Your task to perform on an android device: Go to internet settings Image 0: 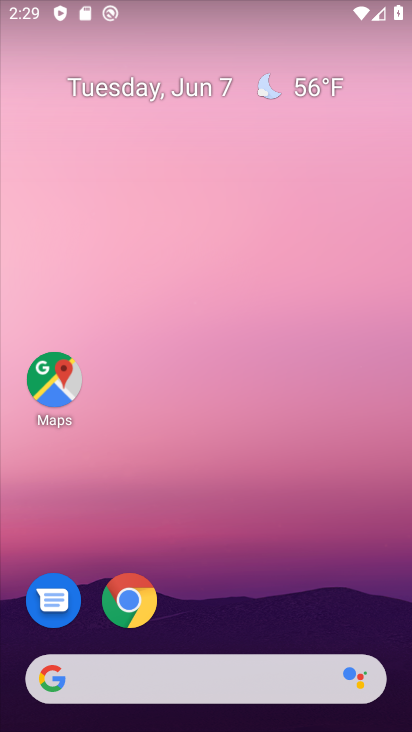
Step 0: drag from (394, 661) to (343, 77)
Your task to perform on an android device: Go to internet settings Image 1: 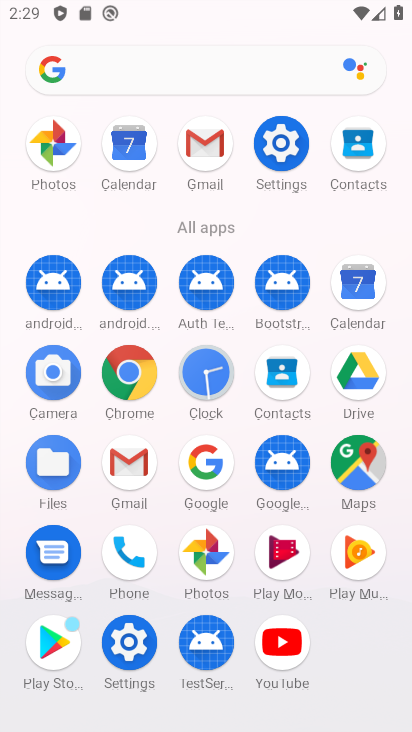
Step 1: click (126, 648)
Your task to perform on an android device: Go to internet settings Image 2: 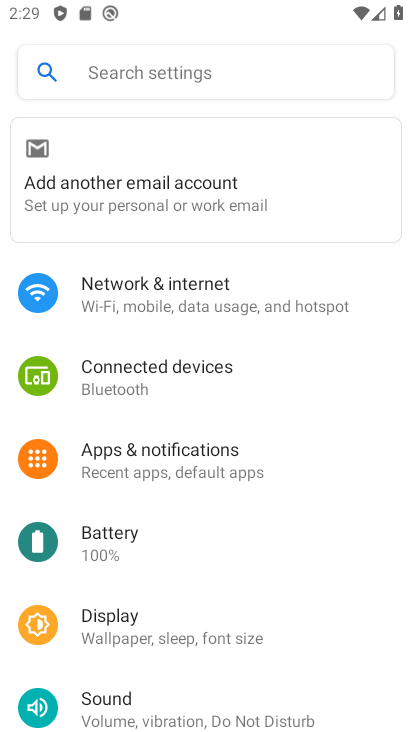
Step 2: click (166, 294)
Your task to perform on an android device: Go to internet settings Image 3: 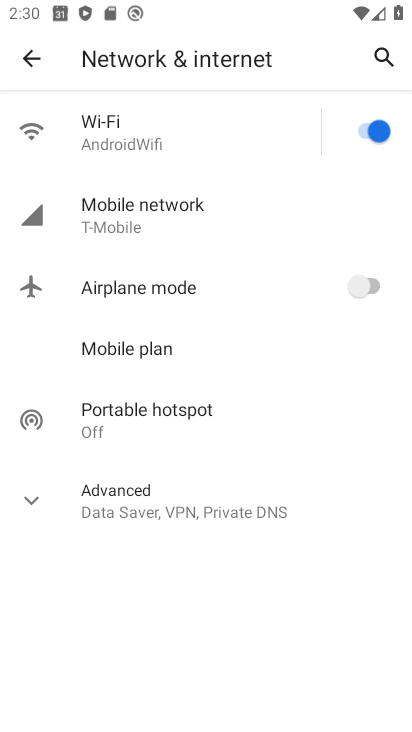
Step 3: click (60, 495)
Your task to perform on an android device: Go to internet settings Image 4: 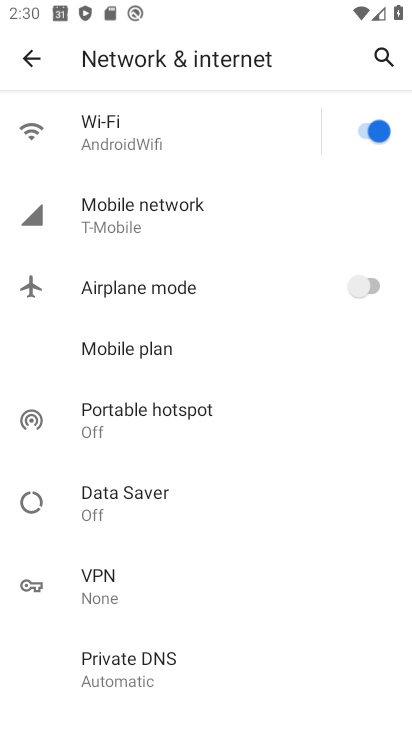
Step 4: task complete